Your task to perform on an android device: turn vacation reply on in the gmail app Image 0: 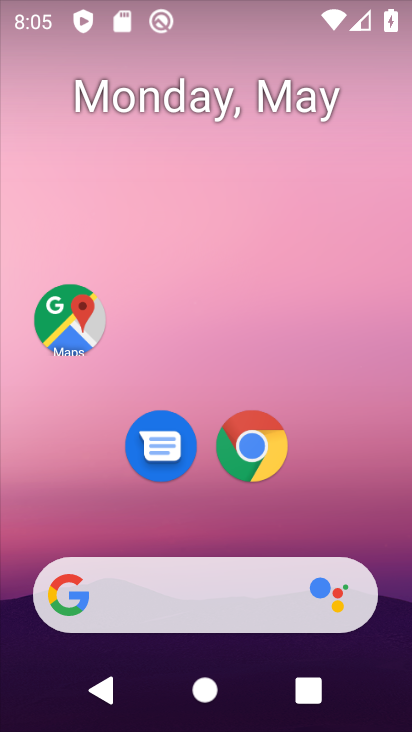
Step 0: drag from (381, 538) to (318, 0)
Your task to perform on an android device: turn vacation reply on in the gmail app Image 1: 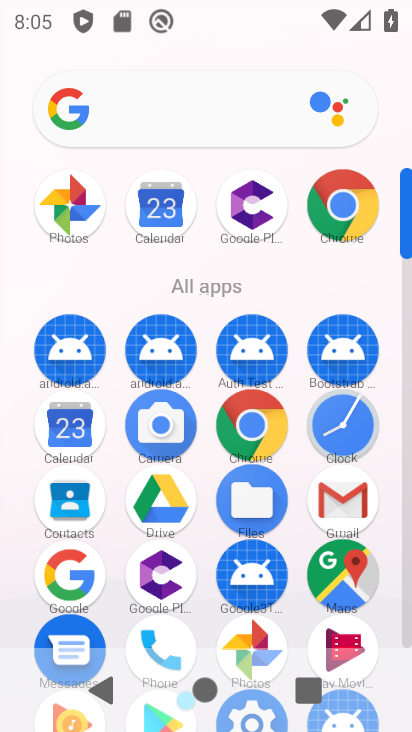
Step 1: click (334, 483)
Your task to perform on an android device: turn vacation reply on in the gmail app Image 2: 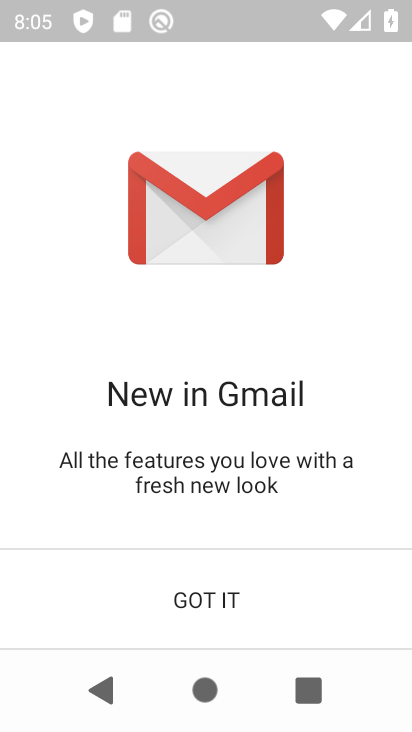
Step 2: click (230, 592)
Your task to perform on an android device: turn vacation reply on in the gmail app Image 3: 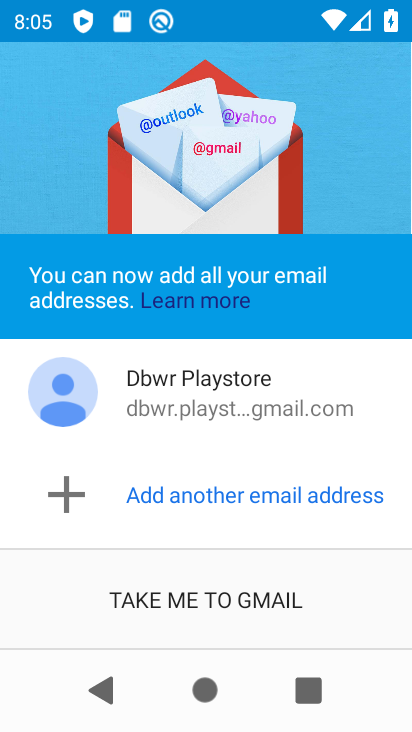
Step 3: click (284, 578)
Your task to perform on an android device: turn vacation reply on in the gmail app Image 4: 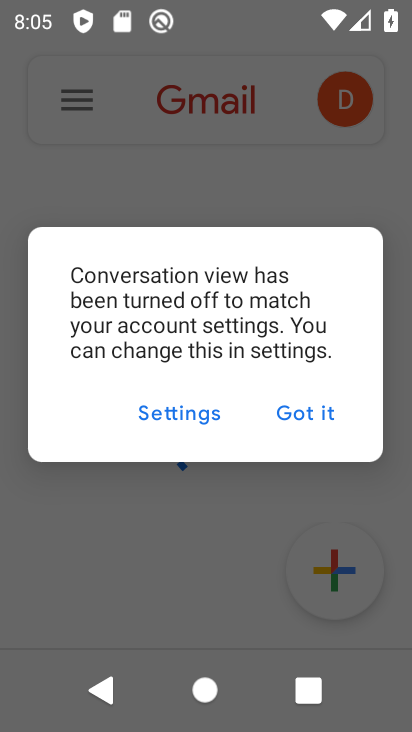
Step 4: click (282, 414)
Your task to perform on an android device: turn vacation reply on in the gmail app Image 5: 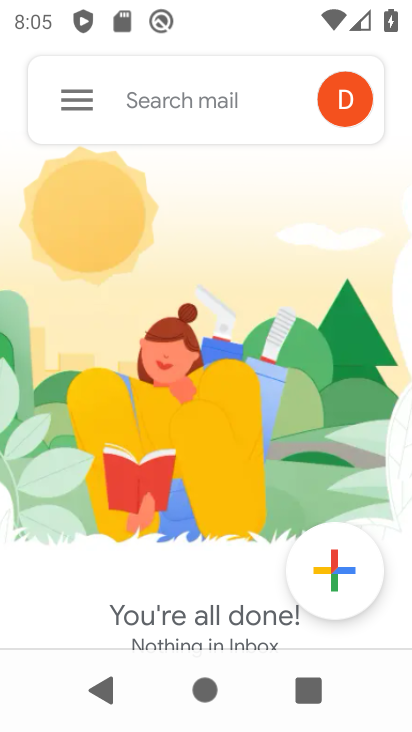
Step 5: click (71, 132)
Your task to perform on an android device: turn vacation reply on in the gmail app Image 6: 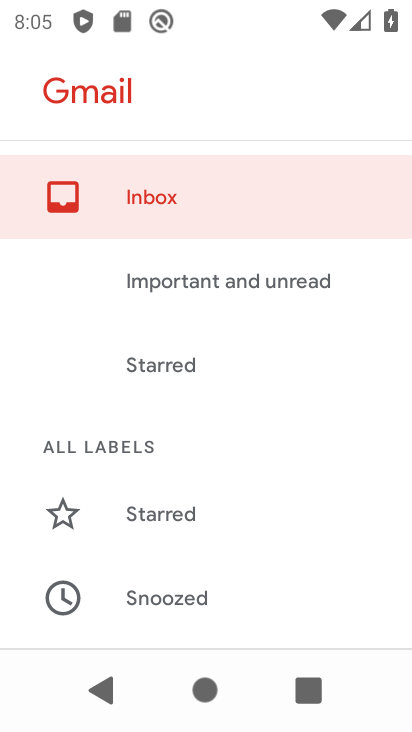
Step 6: drag from (286, 601) to (256, 34)
Your task to perform on an android device: turn vacation reply on in the gmail app Image 7: 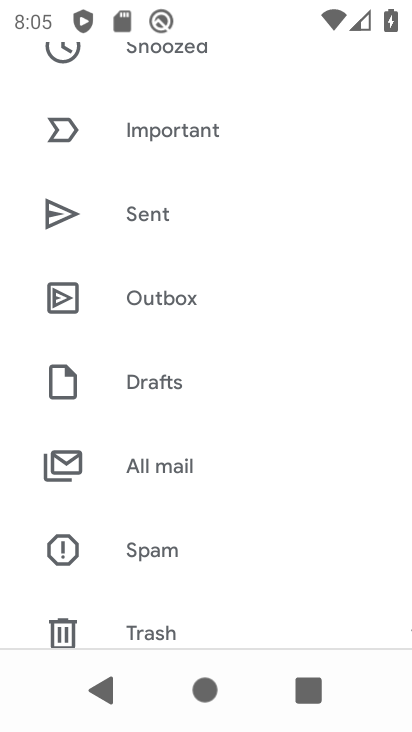
Step 7: drag from (227, 549) to (206, 4)
Your task to perform on an android device: turn vacation reply on in the gmail app Image 8: 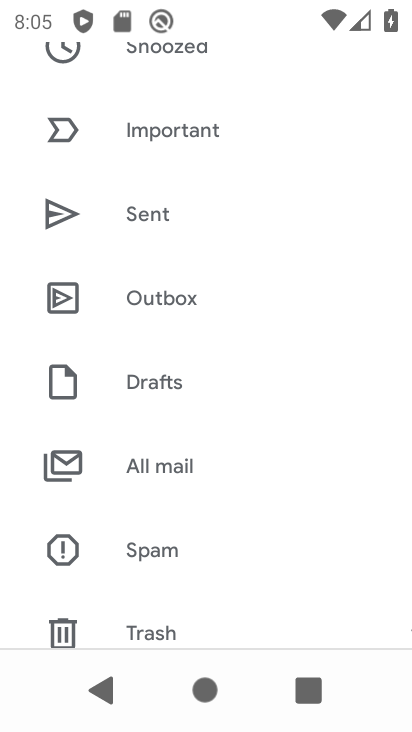
Step 8: drag from (127, 712) to (161, 177)
Your task to perform on an android device: turn vacation reply on in the gmail app Image 9: 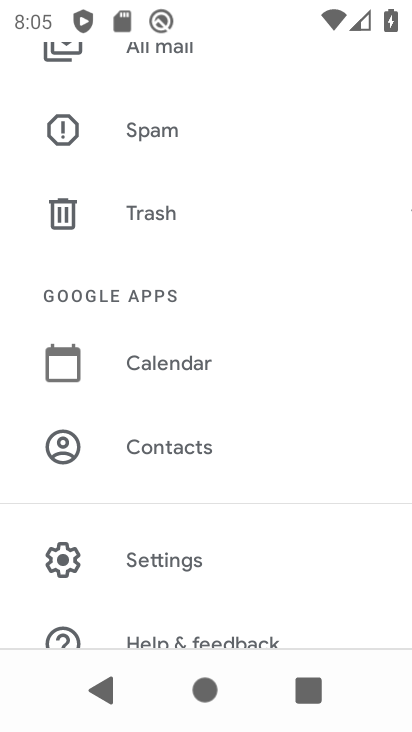
Step 9: click (177, 566)
Your task to perform on an android device: turn vacation reply on in the gmail app Image 10: 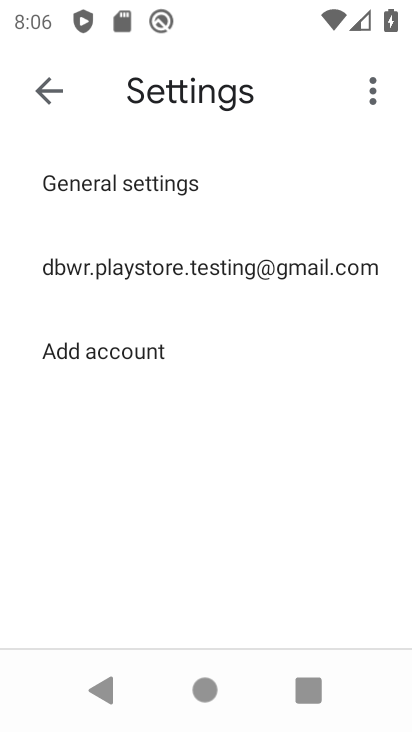
Step 10: click (264, 252)
Your task to perform on an android device: turn vacation reply on in the gmail app Image 11: 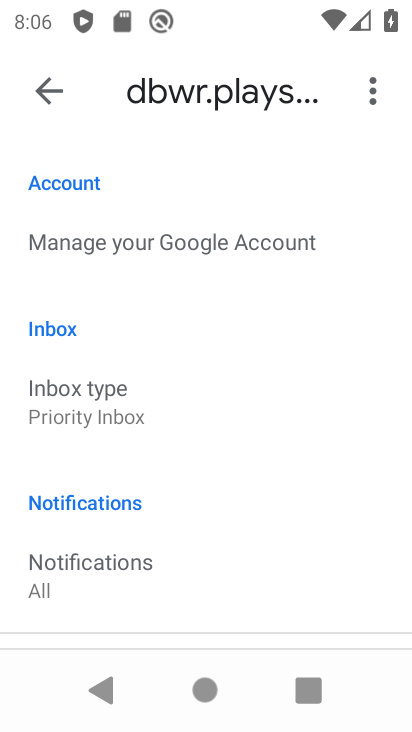
Step 11: task complete